Your task to perform on an android device: turn on wifi Image 0: 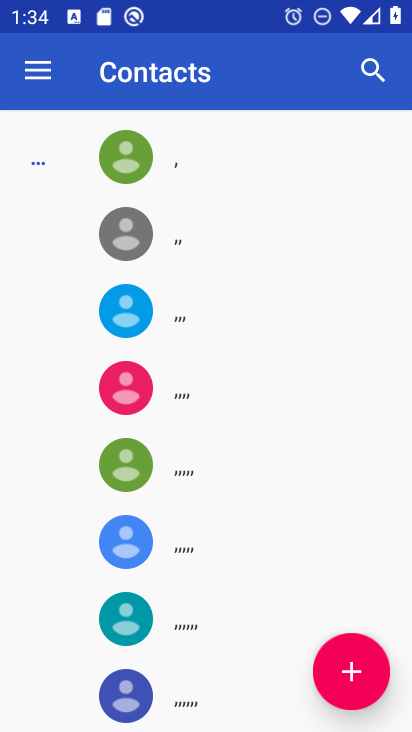
Step 0: press home button
Your task to perform on an android device: turn on wifi Image 1: 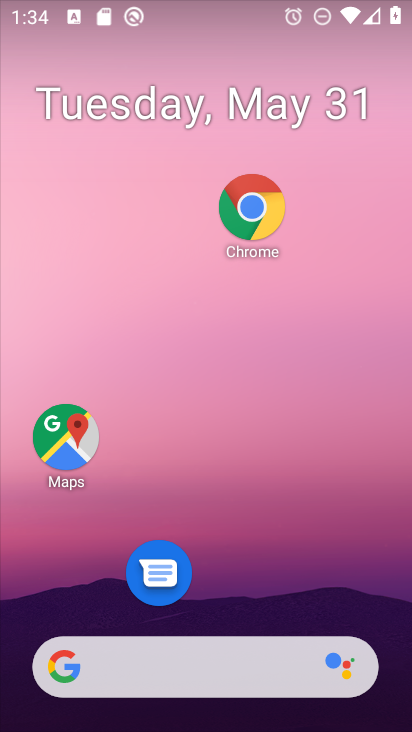
Step 1: drag from (227, 586) to (221, 140)
Your task to perform on an android device: turn on wifi Image 2: 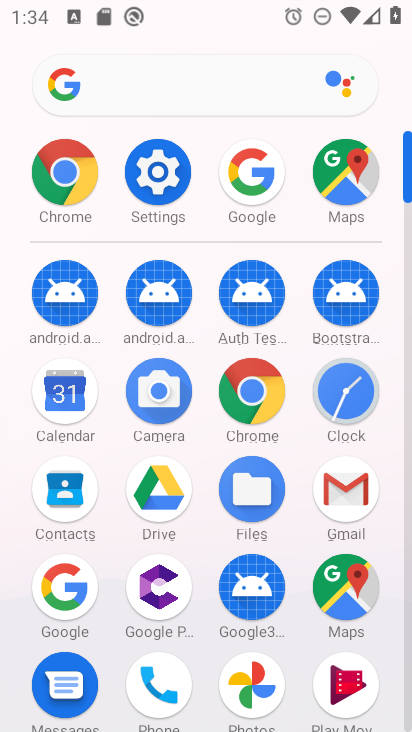
Step 2: click (175, 195)
Your task to perform on an android device: turn on wifi Image 3: 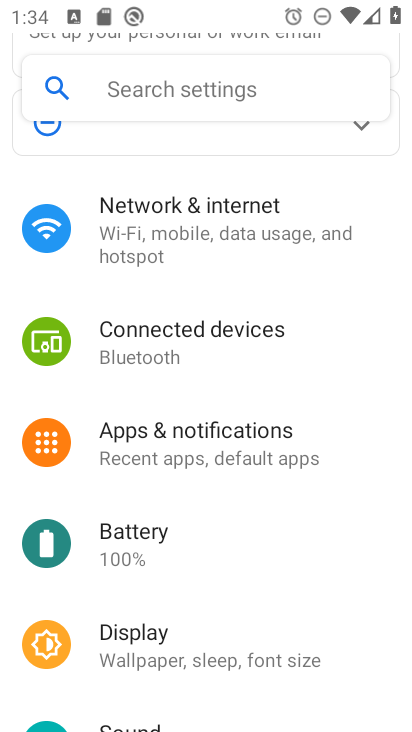
Step 3: drag from (174, 269) to (166, 389)
Your task to perform on an android device: turn on wifi Image 4: 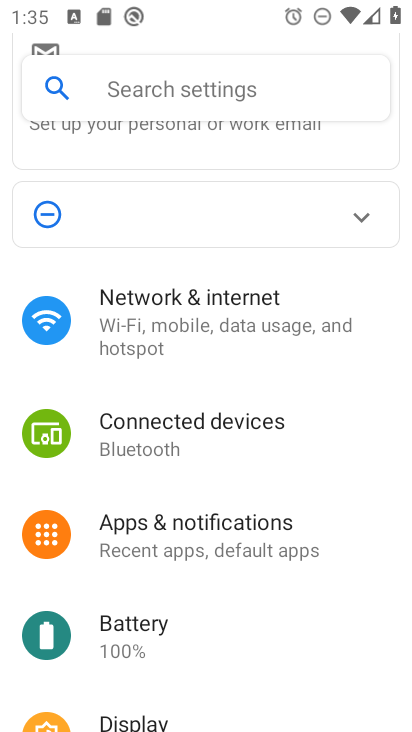
Step 4: click (209, 327)
Your task to perform on an android device: turn on wifi Image 5: 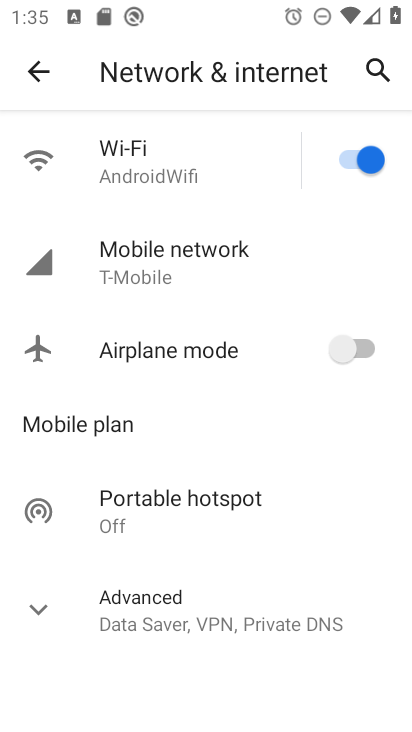
Step 5: click (159, 161)
Your task to perform on an android device: turn on wifi Image 6: 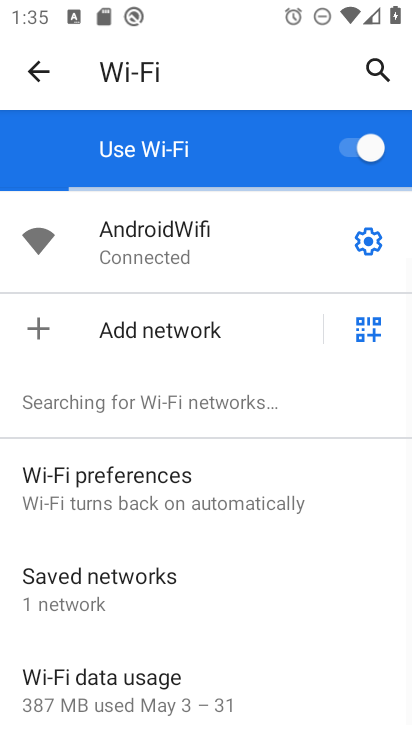
Step 6: task complete